Your task to perform on an android device: open a new tab in the chrome app Image 0: 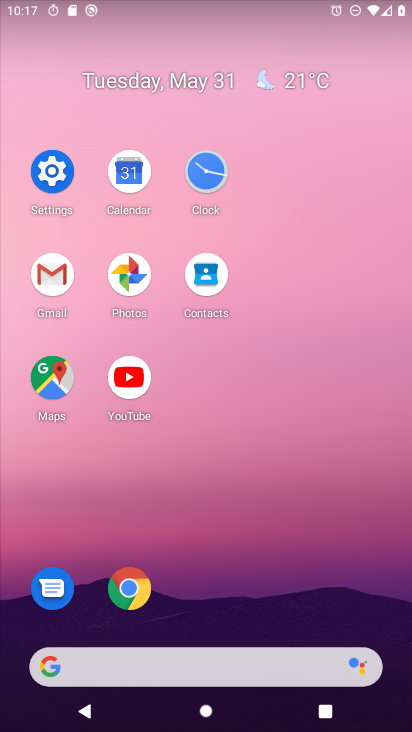
Step 0: click (133, 586)
Your task to perform on an android device: open a new tab in the chrome app Image 1: 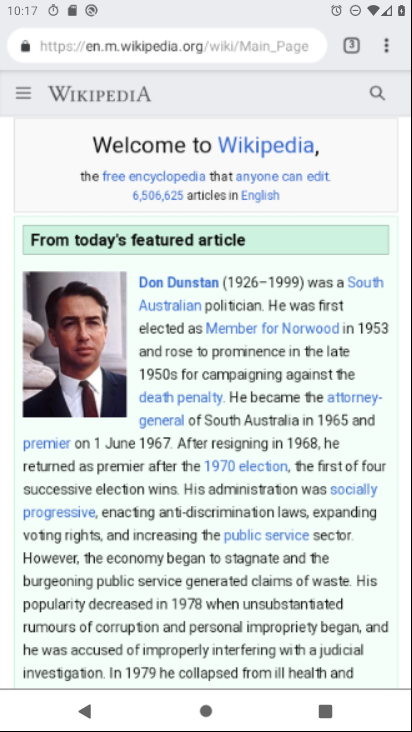
Step 1: click (353, 46)
Your task to perform on an android device: open a new tab in the chrome app Image 2: 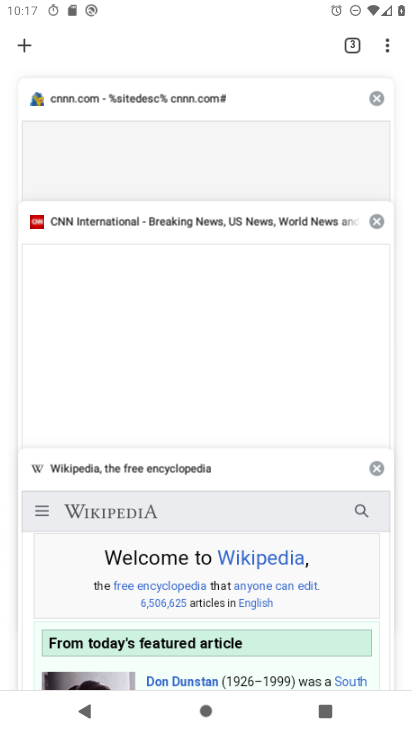
Step 2: click (22, 40)
Your task to perform on an android device: open a new tab in the chrome app Image 3: 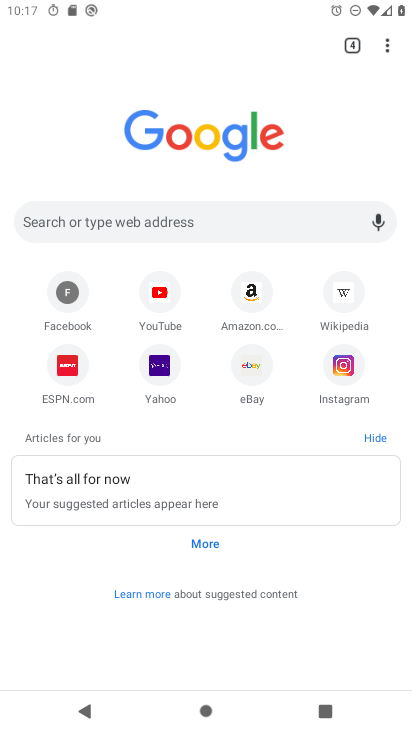
Step 3: task complete